Your task to perform on an android device: turn off location history Image 0: 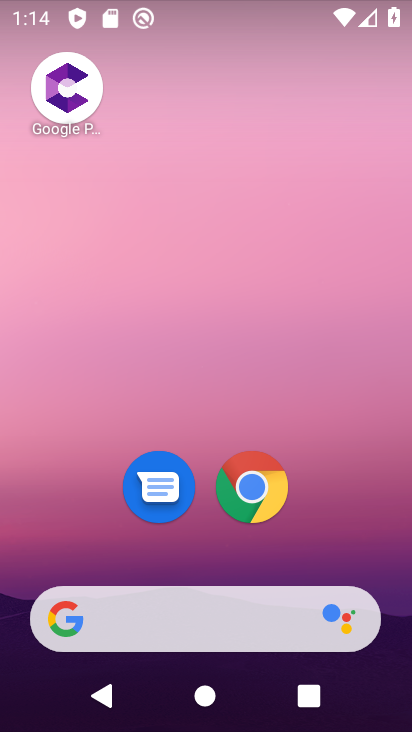
Step 0: drag from (100, 566) to (252, 52)
Your task to perform on an android device: turn off location history Image 1: 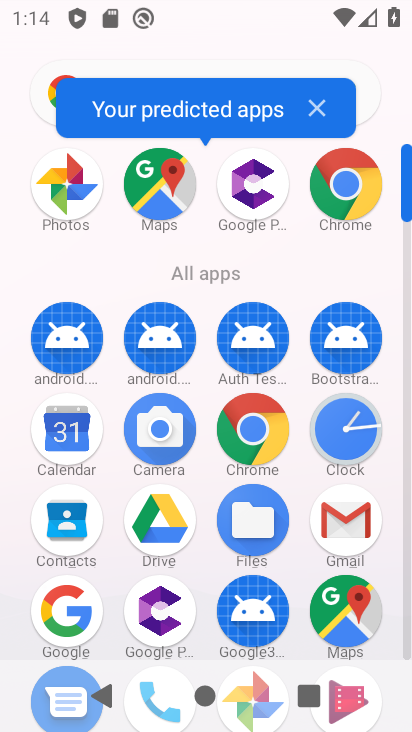
Step 1: drag from (196, 515) to (351, 118)
Your task to perform on an android device: turn off location history Image 2: 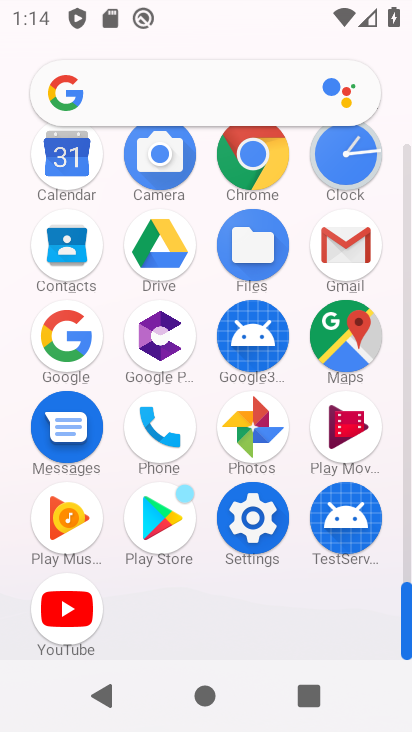
Step 2: click (256, 524)
Your task to perform on an android device: turn off location history Image 3: 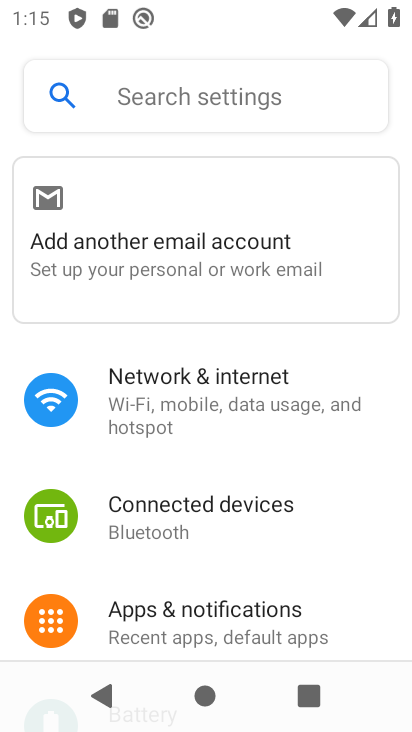
Step 3: drag from (223, 618) to (387, 85)
Your task to perform on an android device: turn off location history Image 4: 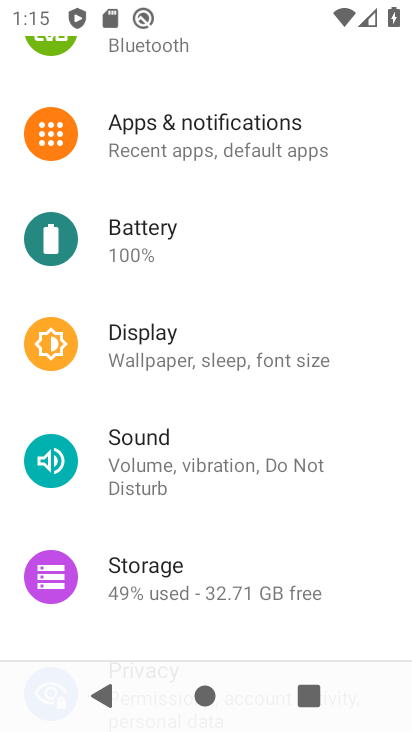
Step 4: drag from (178, 592) to (259, 274)
Your task to perform on an android device: turn off location history Image 5: 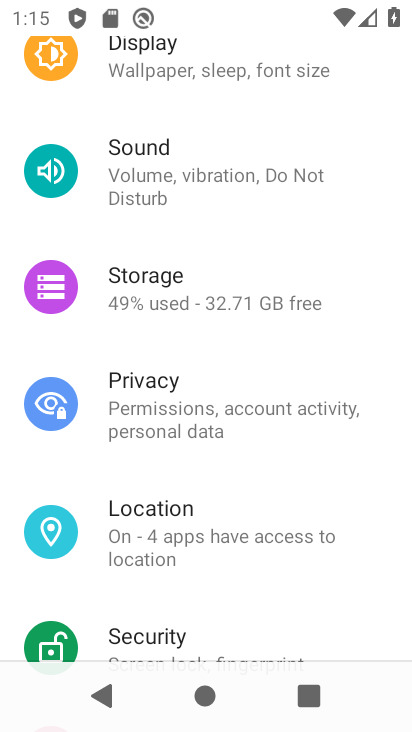
Step 5: click (177, 541)
Your task to perform on an android device: turn off location history Image 6: 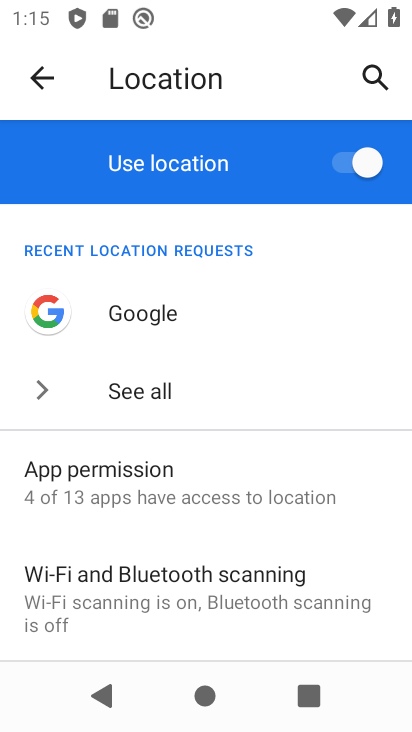
Step 6: click (341, 178)
Your task to perform on an android device: turn off location history Image 7: 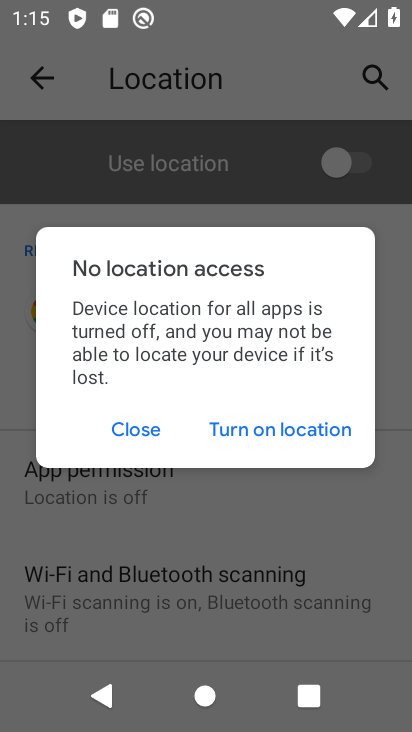
Step 7: click (125, 443)
Your task to perform on an android device: turn off location history Image 8: 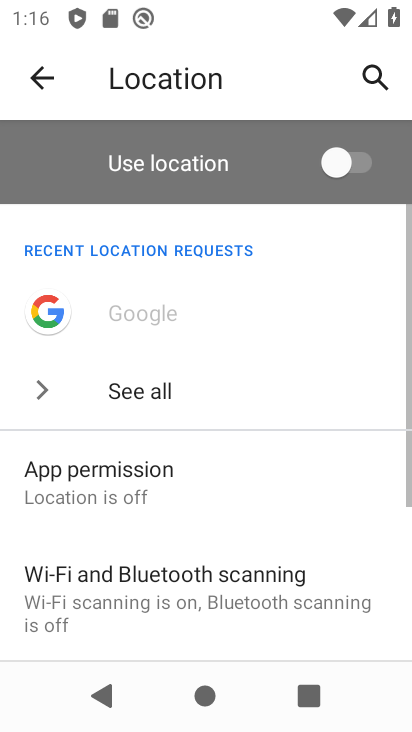
Step 8: task complete